Your task to perform on an android device: What is the news today? Image 0: 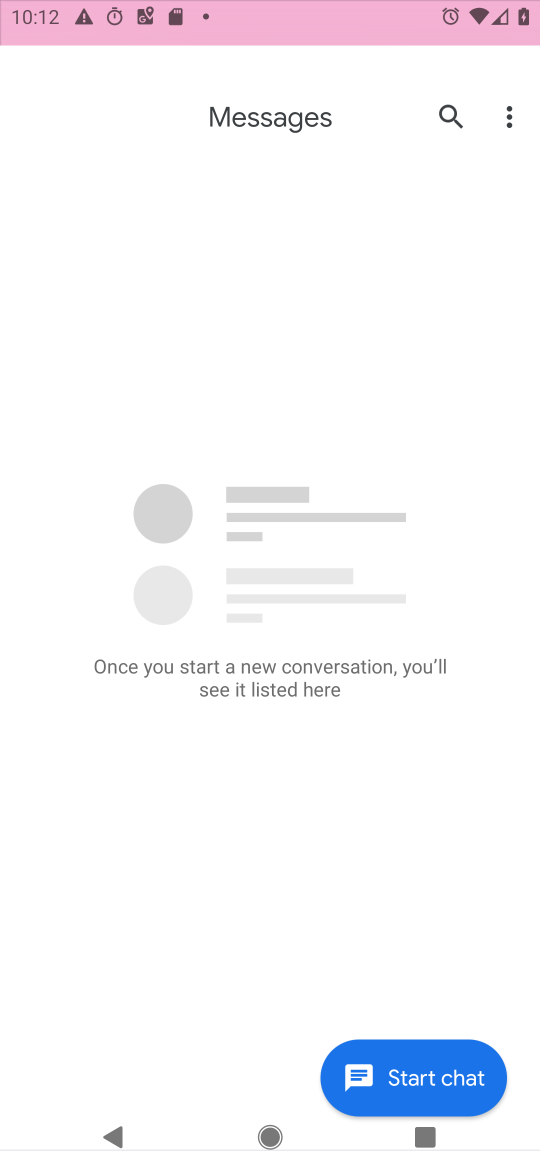
Step 0: click (218, 562)
Your task to perform on an android device: What is the news today? Image 1: 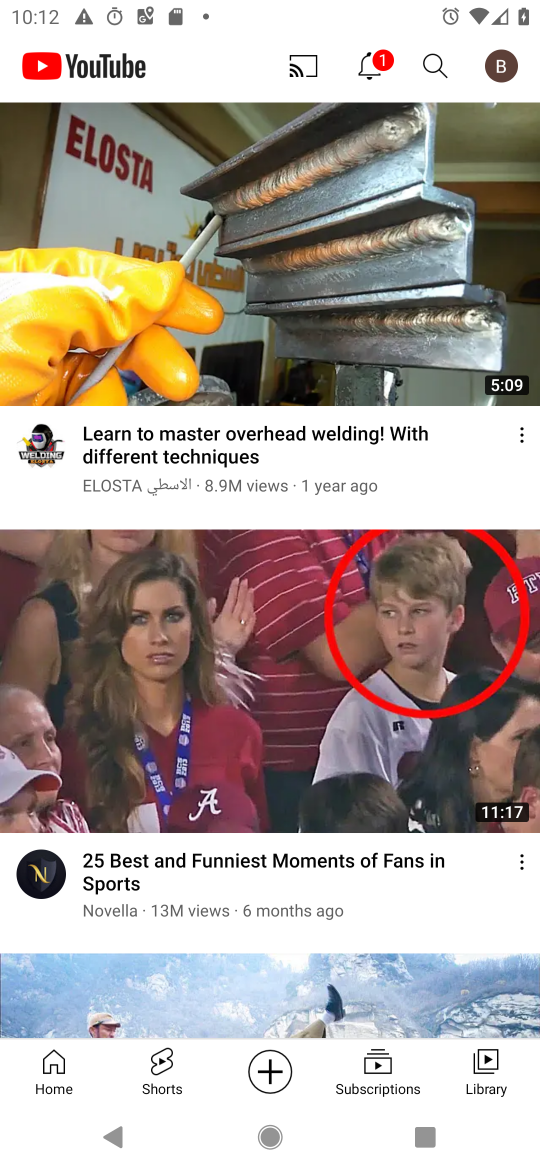
Step 1: press home button
Your task to perform on an android device: What is the news today? Image 2: 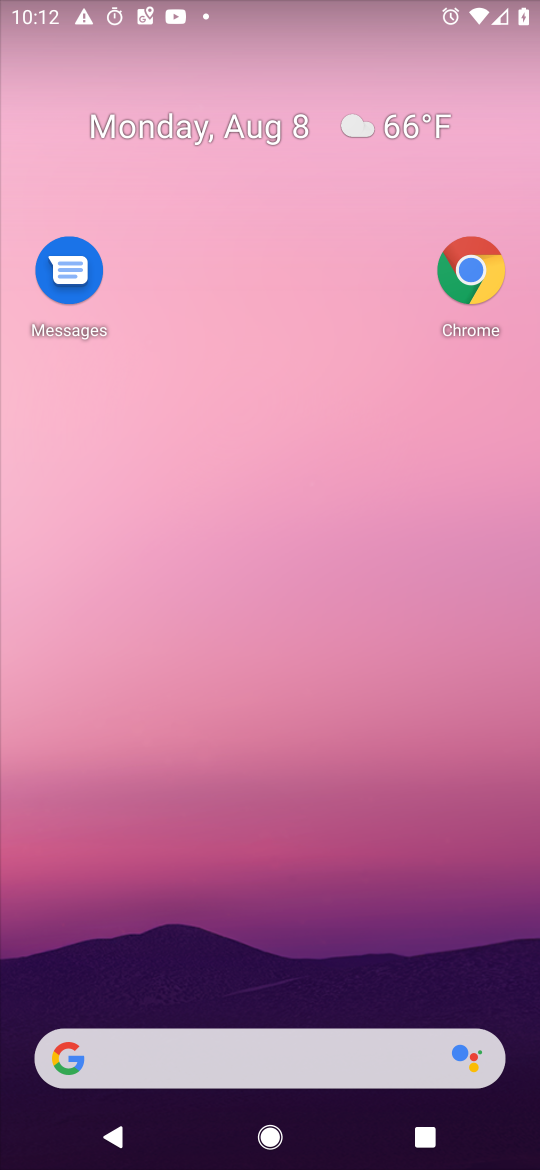
Step 2: drag from (286, 855) to (405, 527)
Your task to perform on an android device: What is the news today? Image 3: 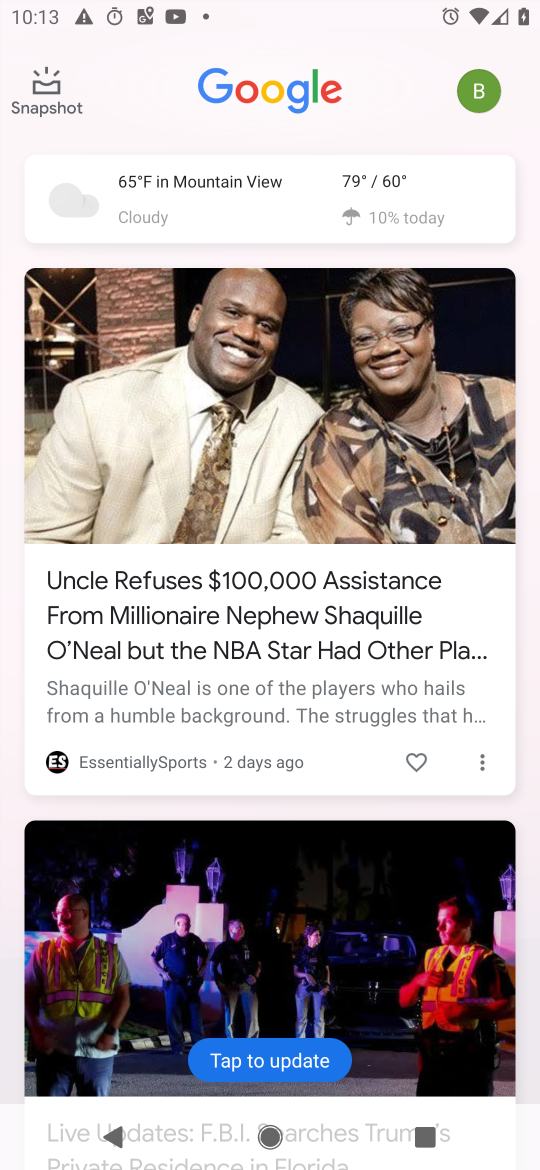
Step 3: press home button
Your task to perform on an android device: What is the news today? Image 4: 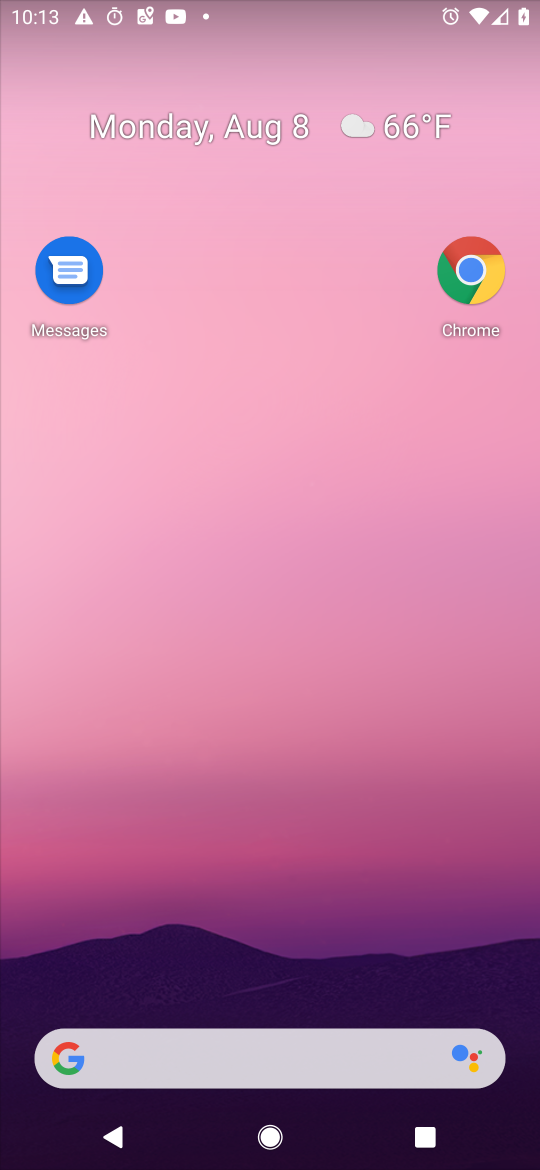
Step 4: drag from (355, 872) to (324, 244)
Your task to perform on an android device: What is the news today? Image 5: 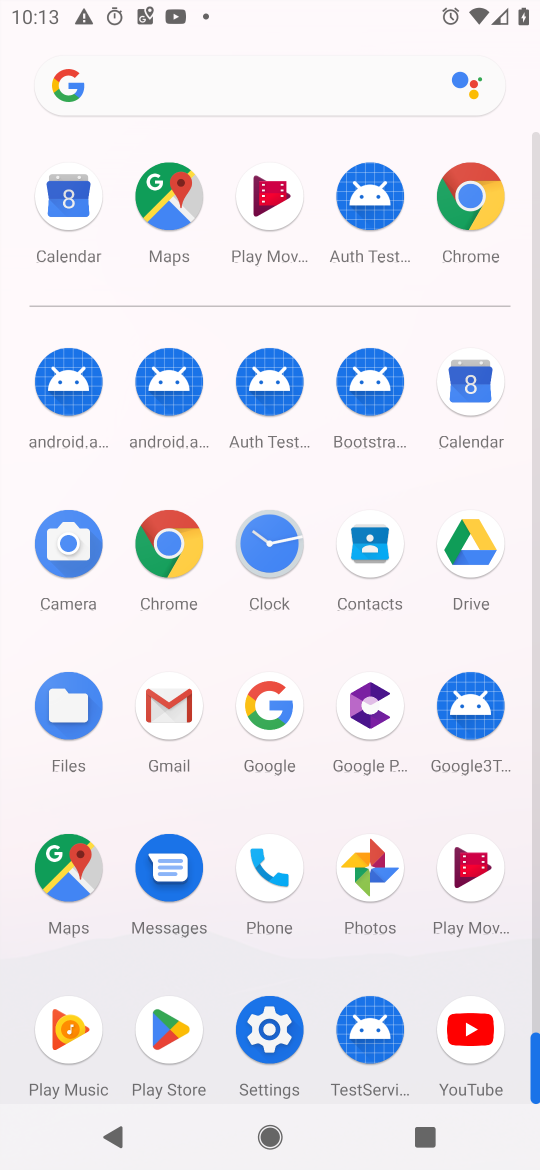
Step 5: click (477, 384)
Your task to perform on an android device: What is the news today? Image 6: 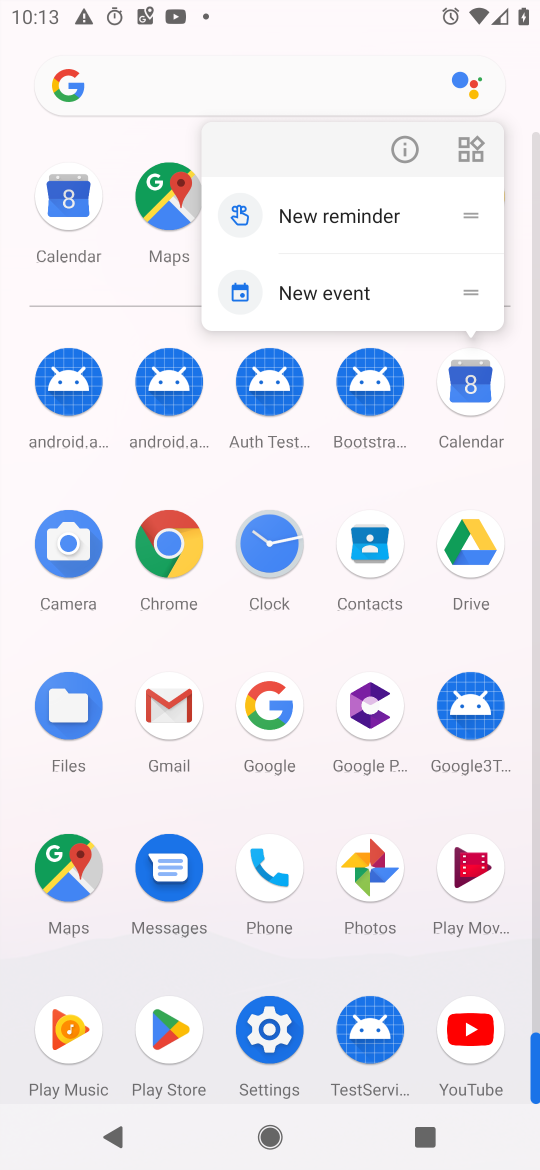
Step 6: click (189, 86)
Your task to perform on an android device: What is the news today? Image 7: 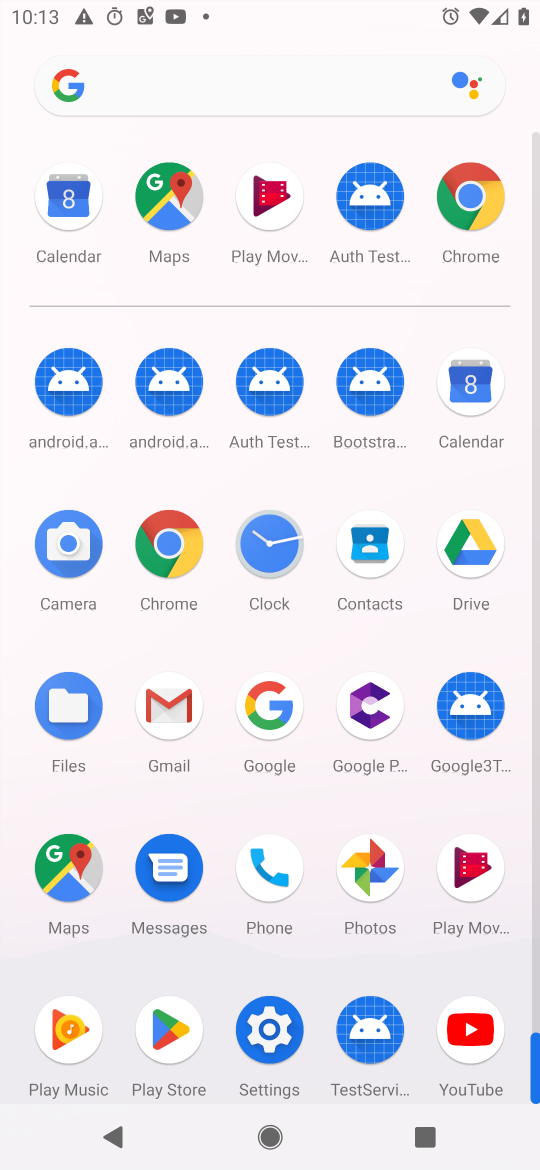
Step 7: click (185, 91)
Your task to perform on an android device: What is the news today? Image 8: 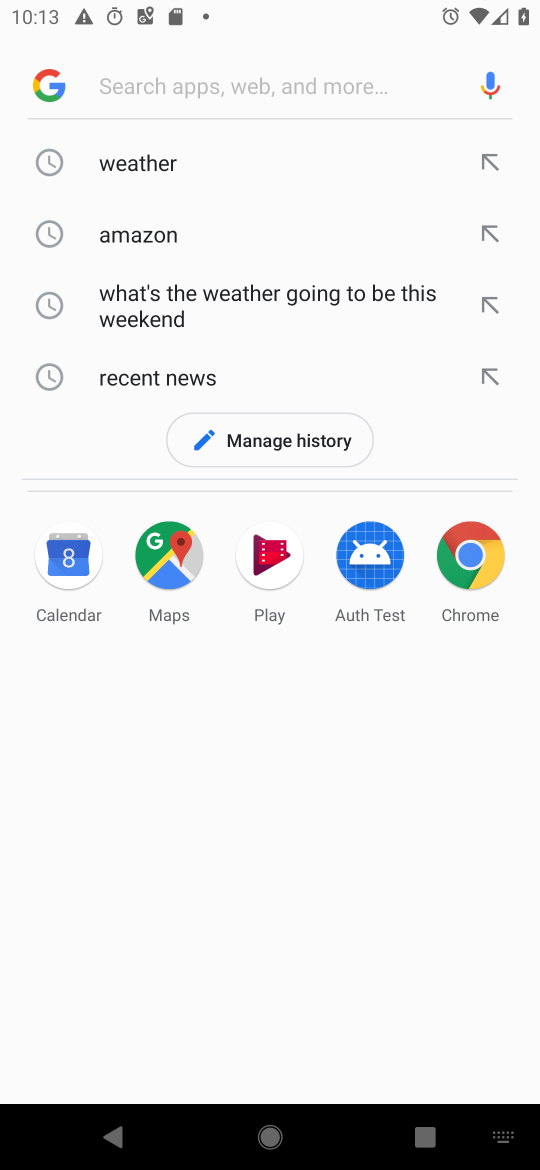
Step 8: type "What is the news today?"
Your task to perform on an android device: What is the news today? Image 9: 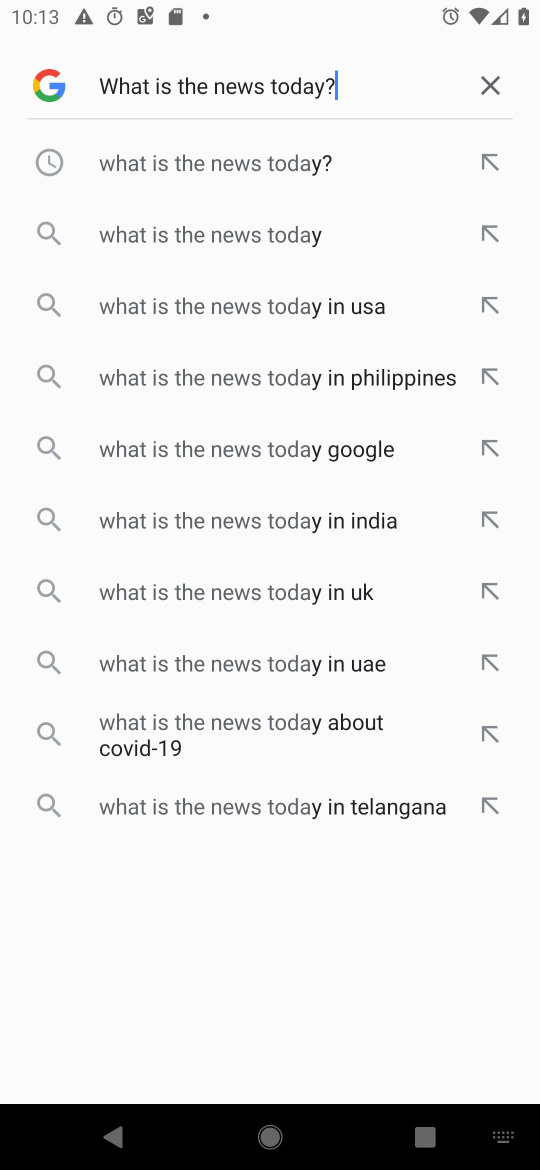
Step 9: type ""
Your task to perform on an android device: What is the news today? Image 10: 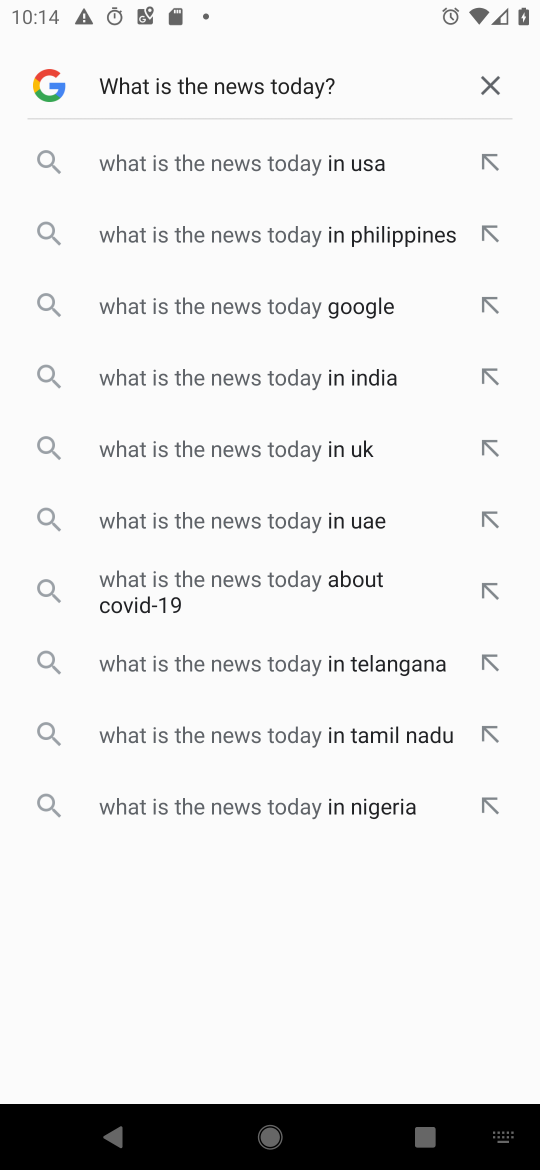
Step 10: click (350, 170)
Your task to perform on an android device: What is the news today? Image 11: 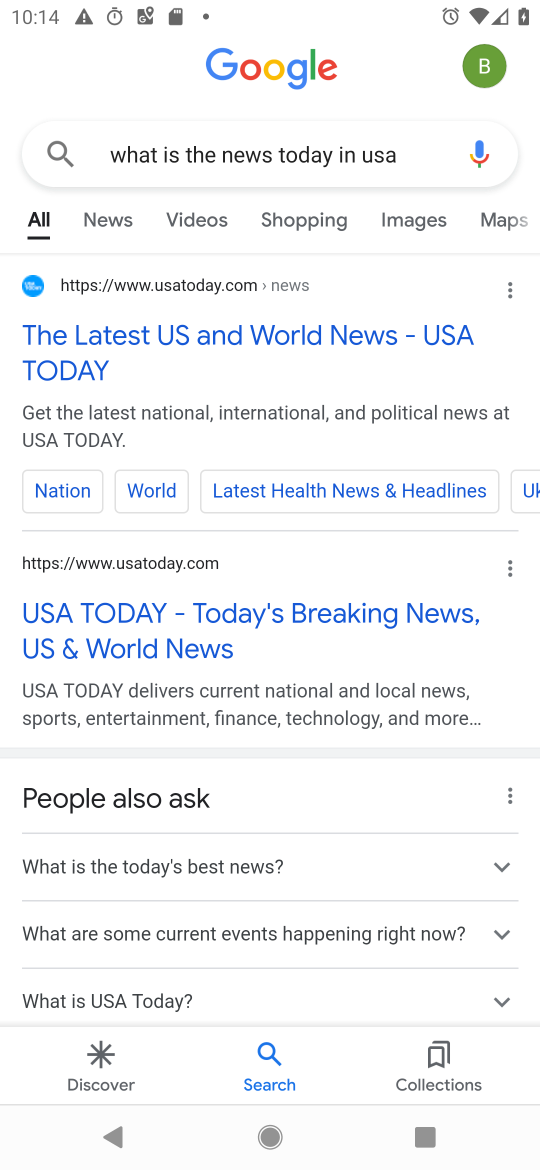
Step 11: drag from (301, 724) to (243, 409)
Your task to perform on an android device: What is the news today? Image 12: 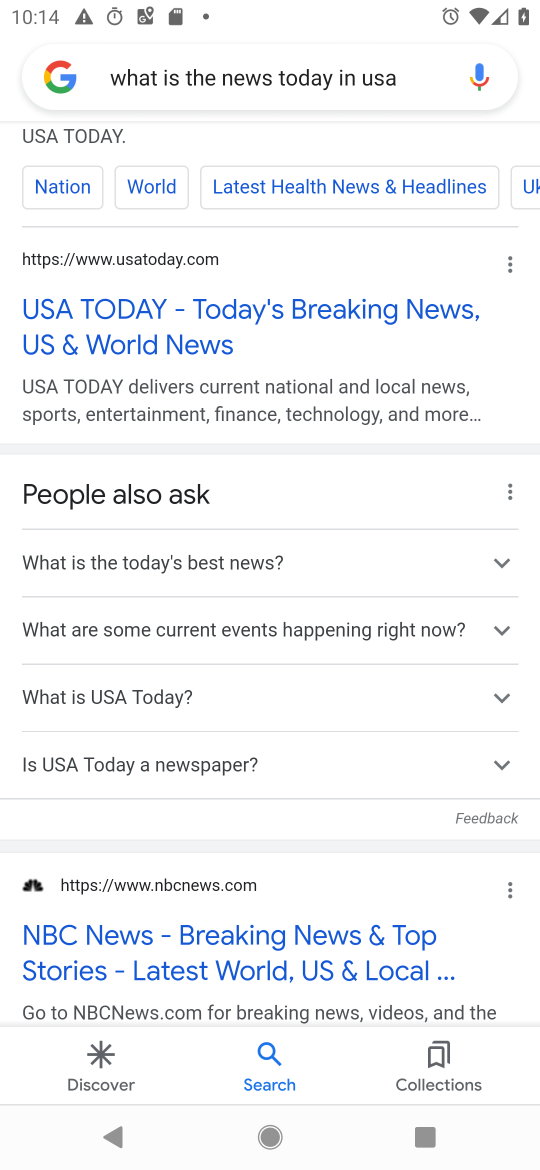
Step 12: click (237, 87)
Your task to perform on an android device: What is the news today? Image 13: 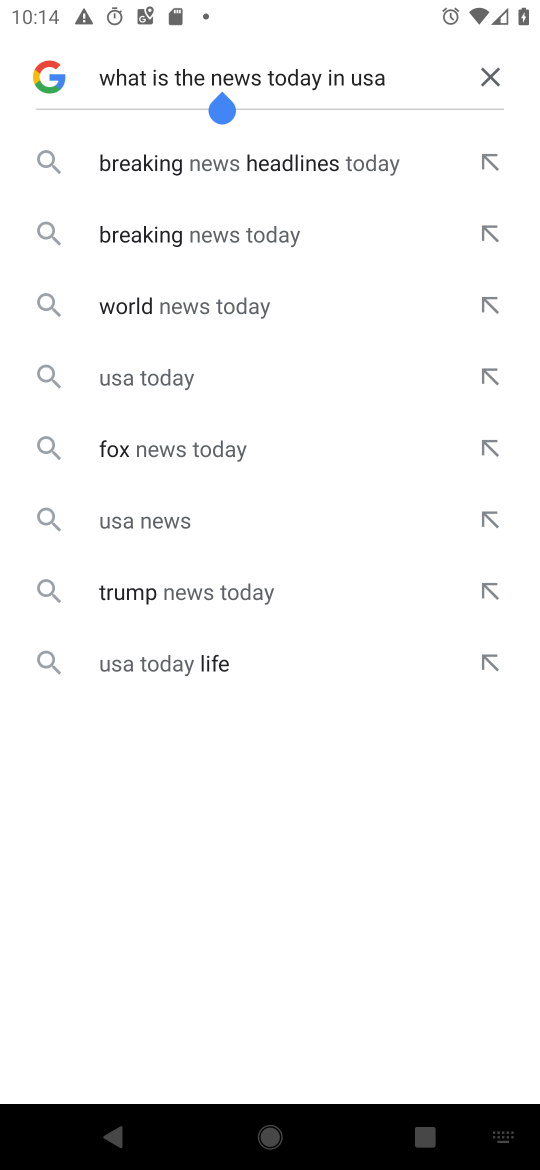
Step 13: task complete